Your task to perform on an android device: What's on my calendar tomorrow? Image 0: 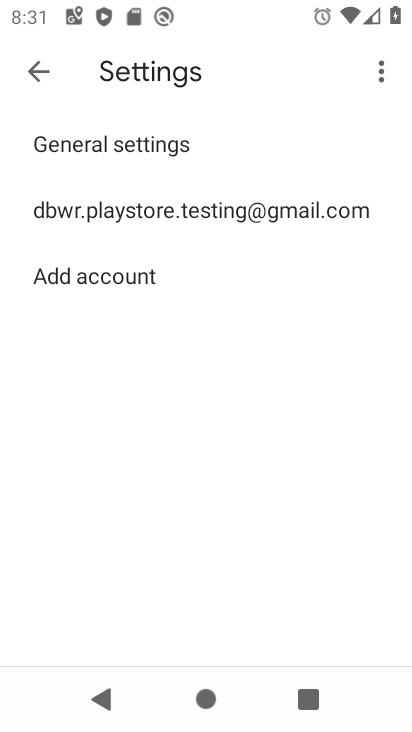
Step 0: press home button
Your task to perform on an android device: What's on my calendar tomorrow? Image 1: 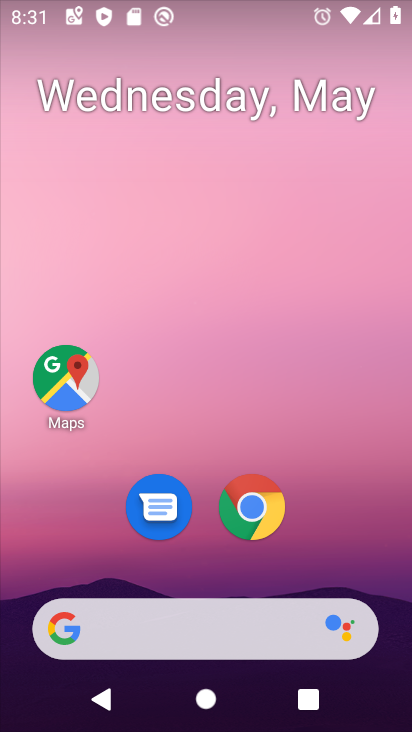
Step 1: drag from (322, 536) to (326, 218)
Your task to perform on an android device: What's on my calendar tomorrow? Image 2: 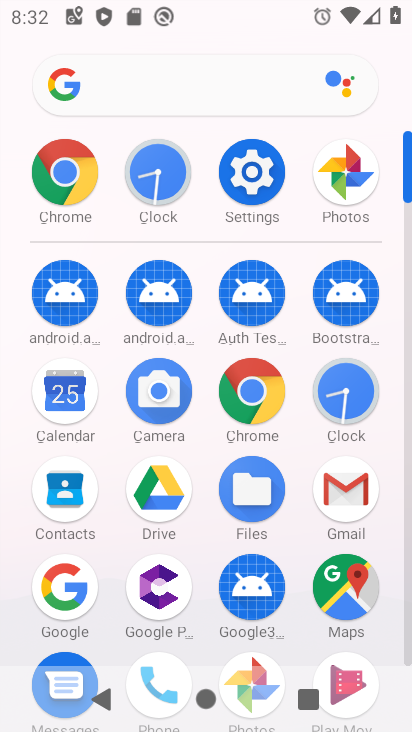
Step 2: click (48, 394)
Your task to perform on an android device: What's on my calendar tomorrow? Image 3: 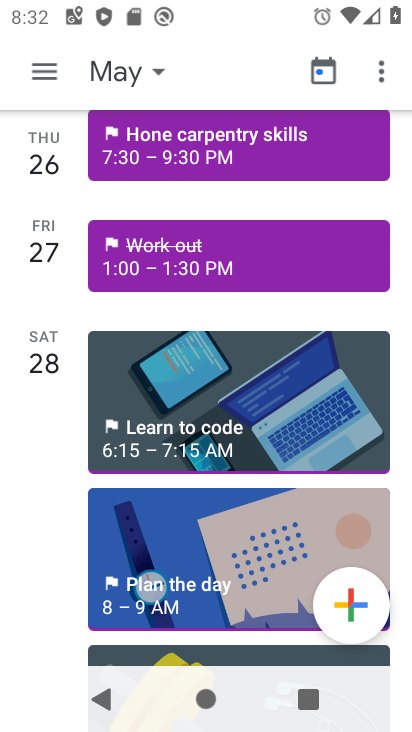
Step 3: task complete